Your task to perform on an android device: clear history in the chrome app Image 0: 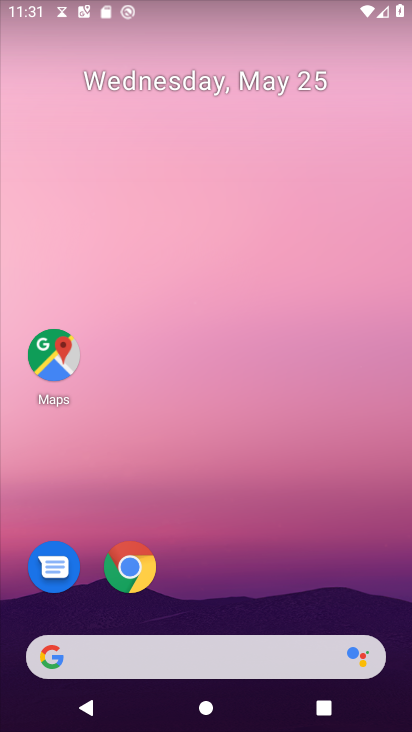
Step 0: click (124, 570)
Your task to perform on an android device: clear history in the chrome app Image 1: 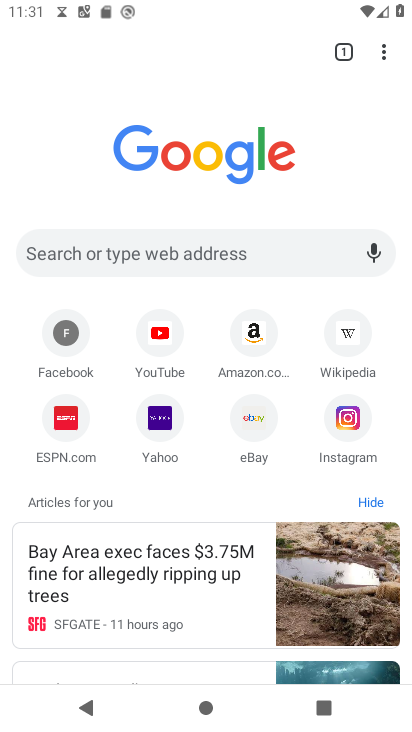
Step 1: click (390, 64)
Your task to perform on an android device: clear history in the chrome app Image 2: 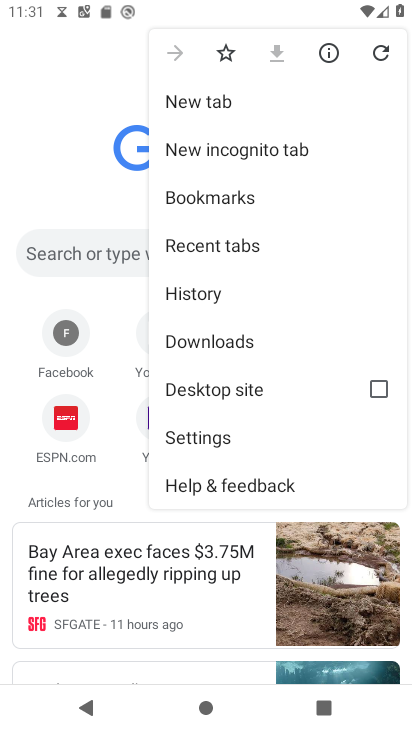
Step 2: click (283, 445)
Your task to perform on an android device: clear history in the chrome app Image 3: 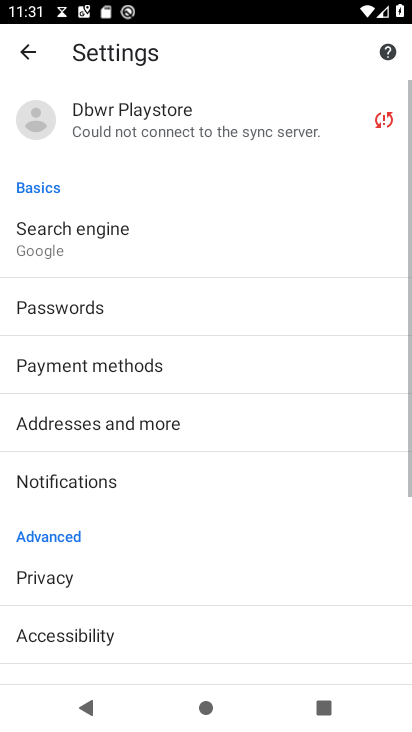
Step 3: drag from (259, 528) to (209, 207)
Your task to perform on an android device: clear history in the chrome app Image 4: 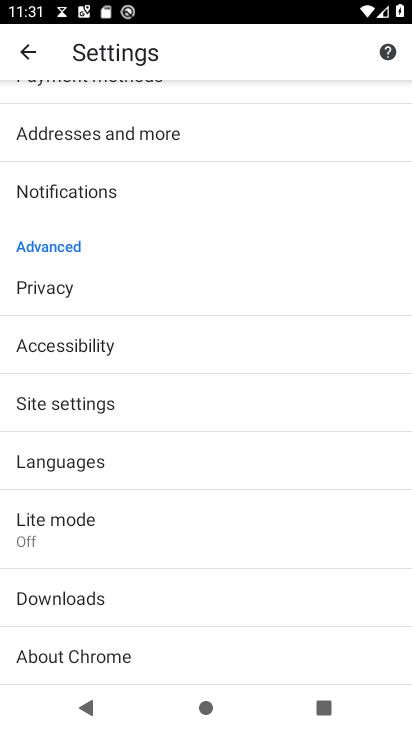
Step 4: drag from (204, 561) to (234, 153)
Your task to perform on an android device: clear history in the chrome app Image 5: 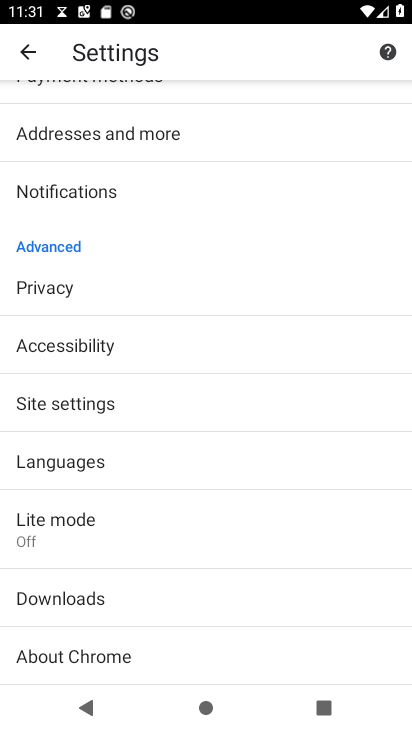
Step 5: click (99, 274)
Your task to perform on an android device: clear history in the chrome app Image 6: 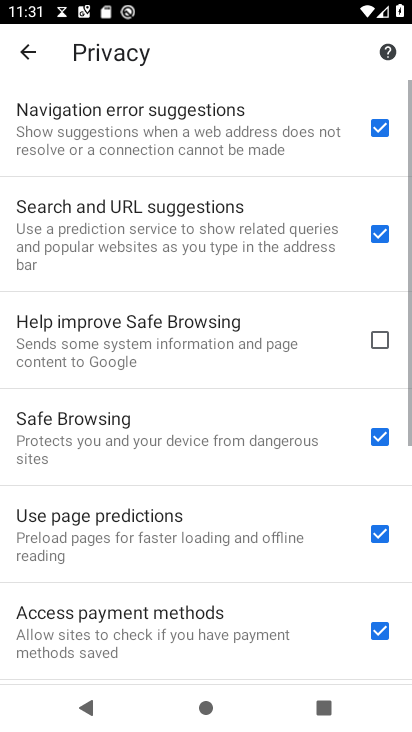
Step 6: drag from (139, 565) to (134, 167)
Your task to perform on an android device: clear history in the chrome app Image 7: 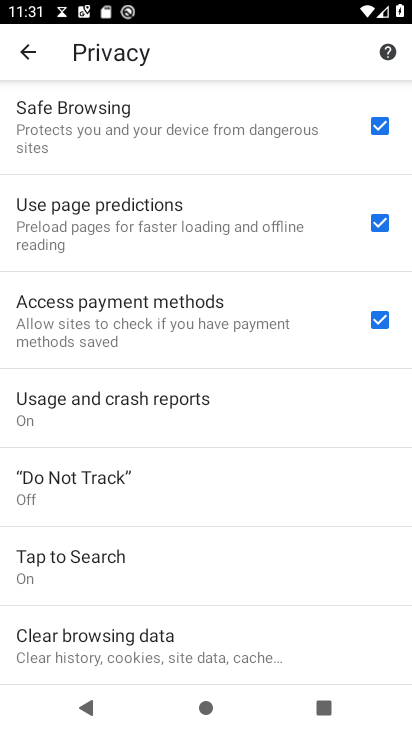
Step 7: drag from (137, 621) to (182, 181)
Your task to perform on an android device: clear history in the chrome app Image 8: 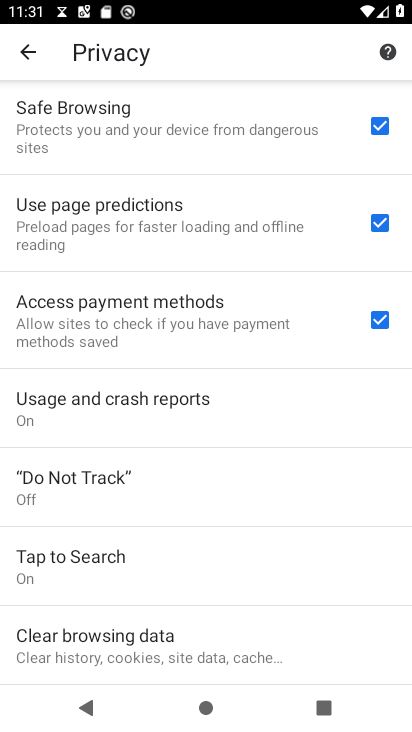
Step 8: click (215, 647)
Your task to perform on an android device: clear history in the chrome app Image 9: 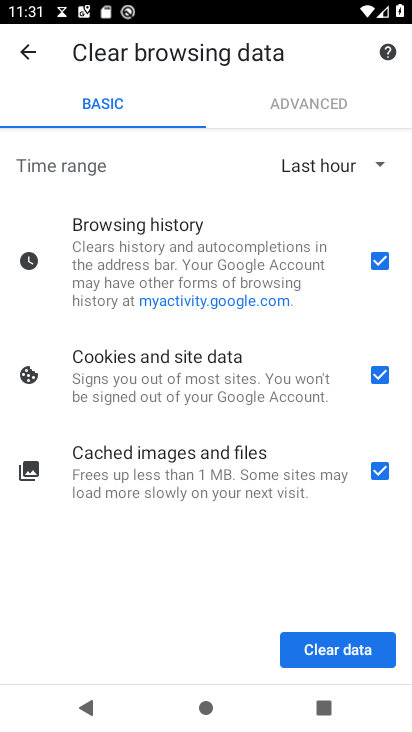
Step 9: click (398, 373)
Your task to perform on an android device: clear history in the chrome app Image 10: 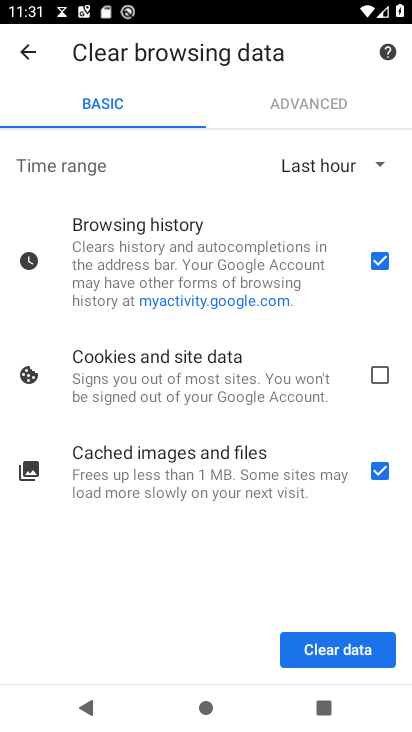
Step 10: click (363, 467)
Your task to perform on an android device: clear history in the chrome app Image 11: 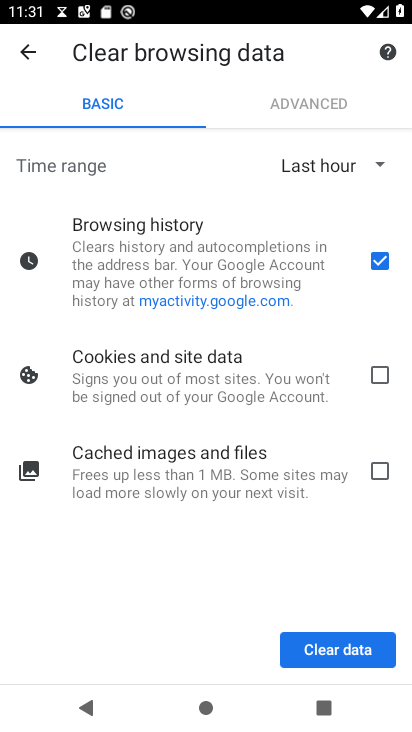
Step 11: click (350, 657)
Your task to perform on an android device: clear history in the chrome app Image 12: 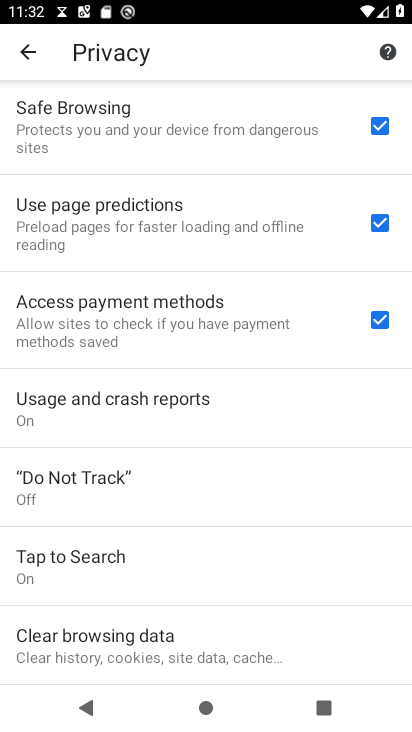
Step 12: task complete